Your task to perform on an android device: find snoozed emails in the gmail app Image 0: 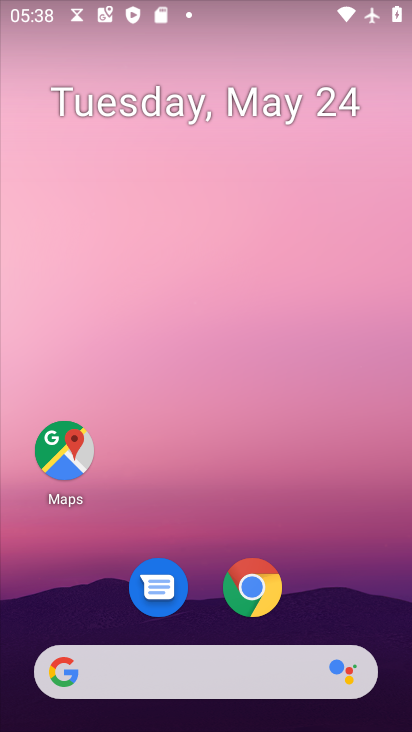
Step 0: drag from (335, 487) to (218, 29)
Your task to perform on an android device: find snoozed emails in the gmail app Image 1: 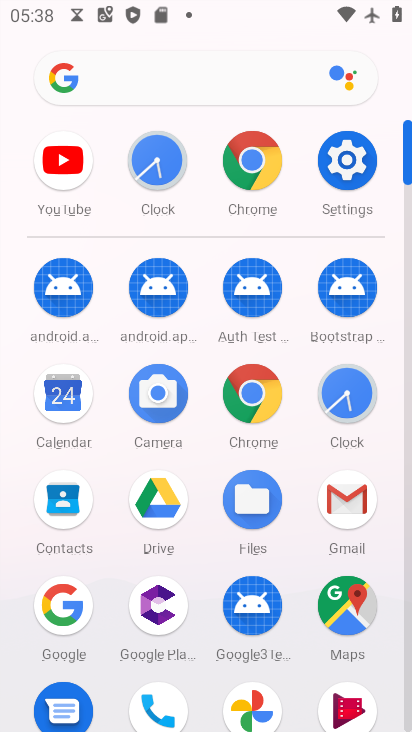
Step 1: click (348, 482)
Your task to perform on an android device: find snoozed emails in the gmail app Image 2: 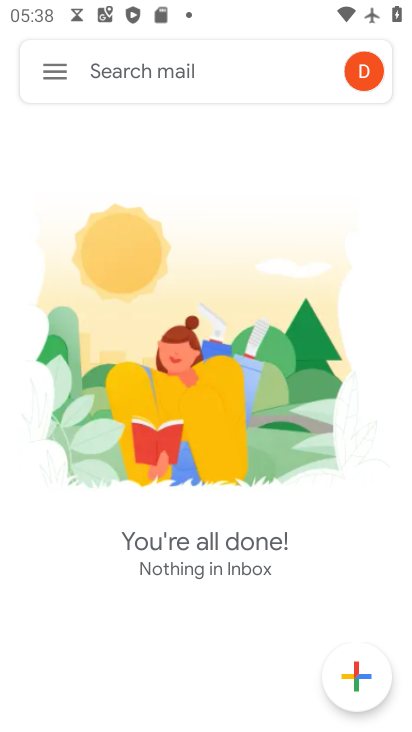
Step 2: click (52, 60)
Your task to perform on an android device: find snoozed emails in the gmail app Image 3: 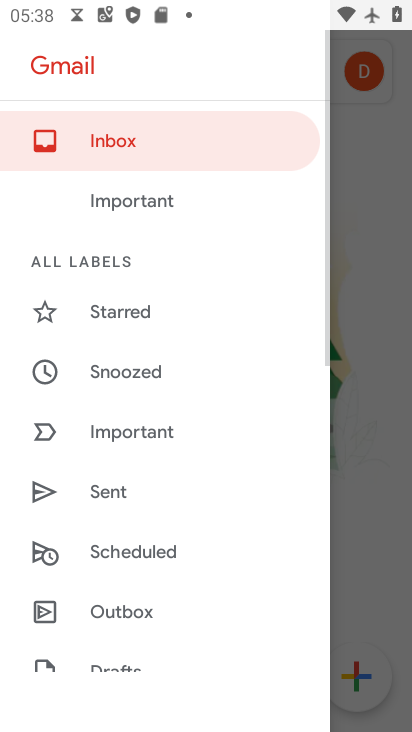
Step 3: click (149, 373)
Your task to perform on an android device: find snoozed emails in the gmail app Image 4: 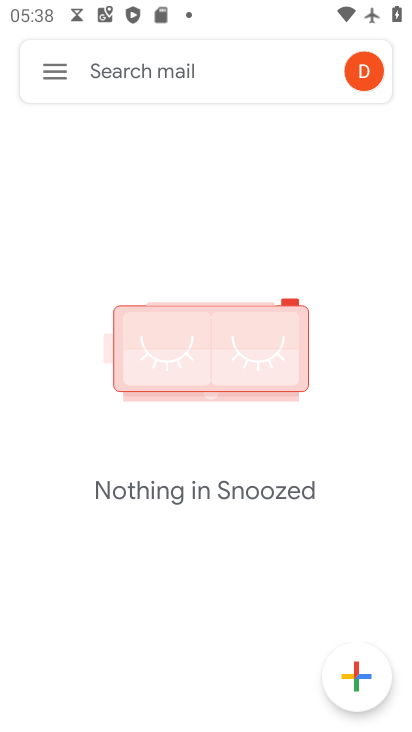
Step 4: task complete